Your task to perform on an android device: Open notification settings Image 0: 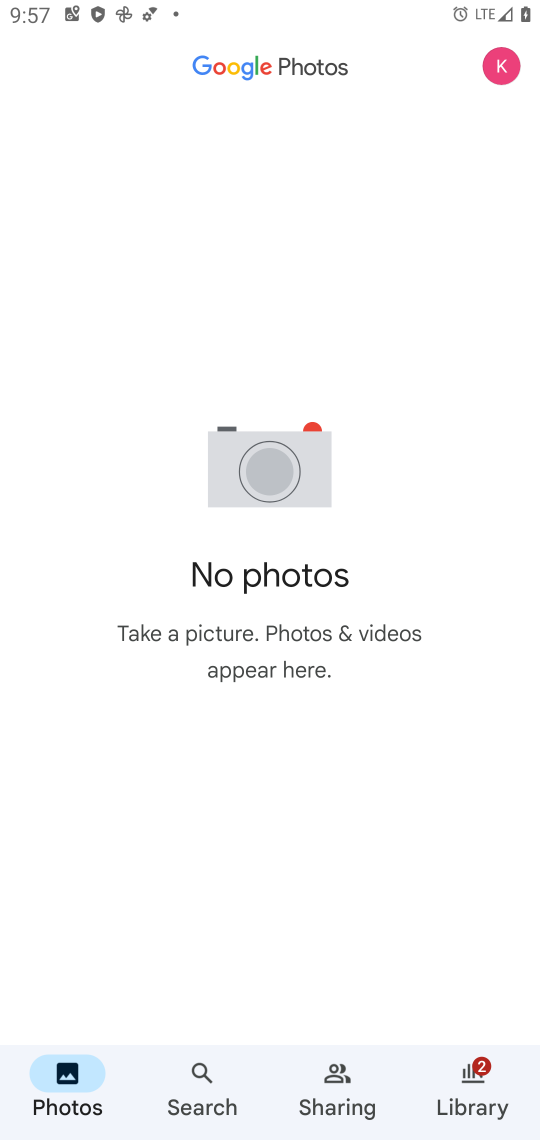
Step 0: press home button
Your task to perform on an android device: Open notification settings Image 1: 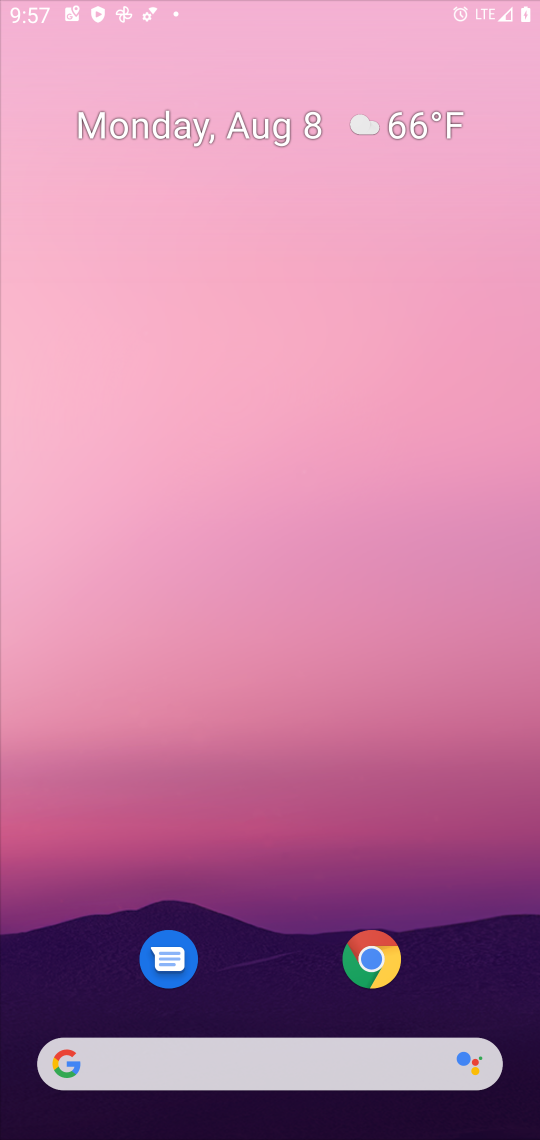
Step 1: drag from (477, 917) to (236, 80)
Your task to perform on an android device: Open notification settings Image 2: 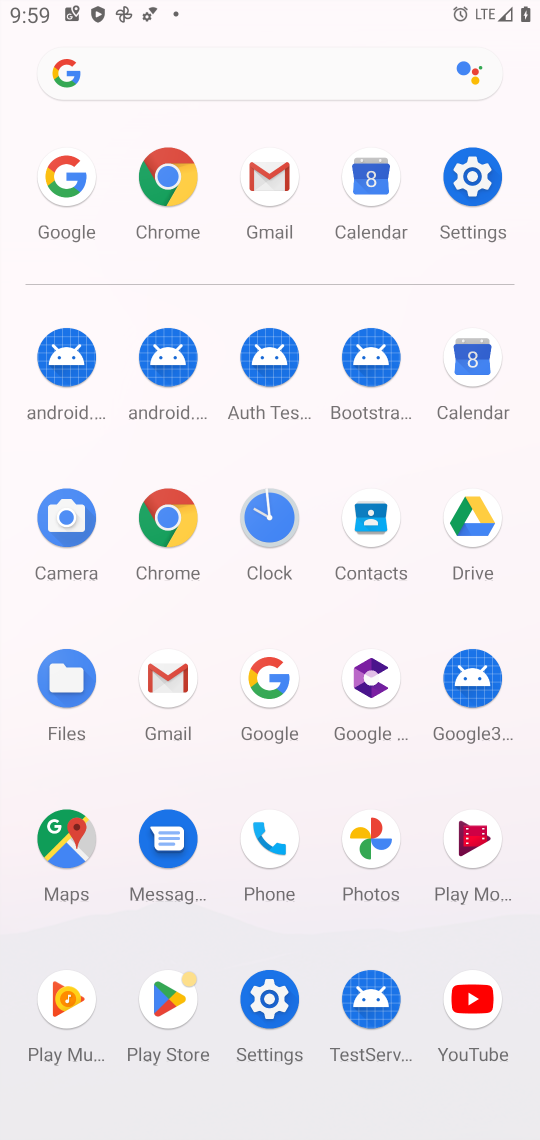
Step 2: click (263, 1008)
Your task to perform on an android device: Open notification settings Image 3: 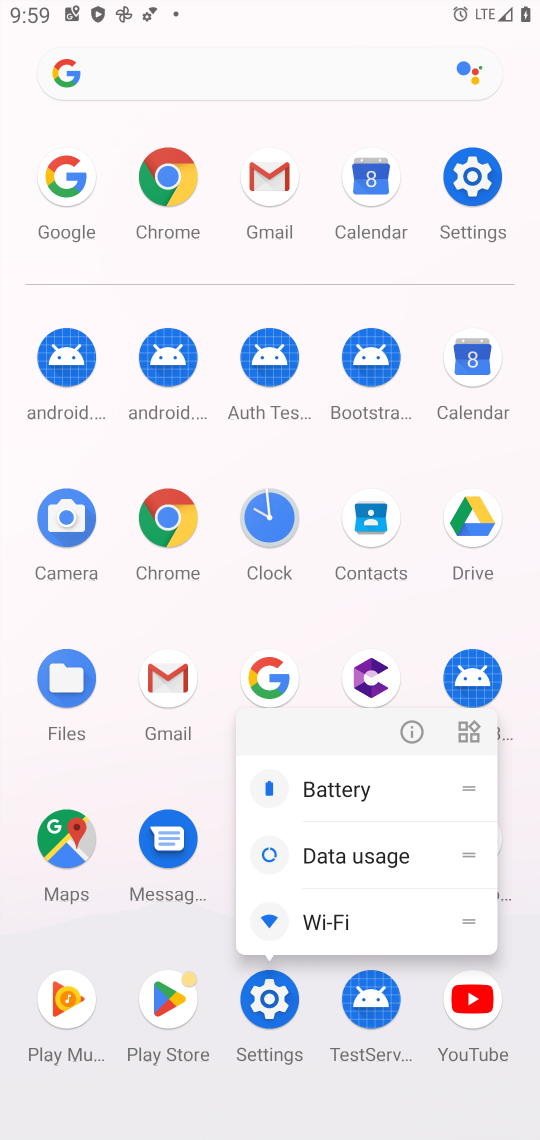
Step 3: click (270, 1004)
Your task to perform on an android device: Open notification settings Image 4: 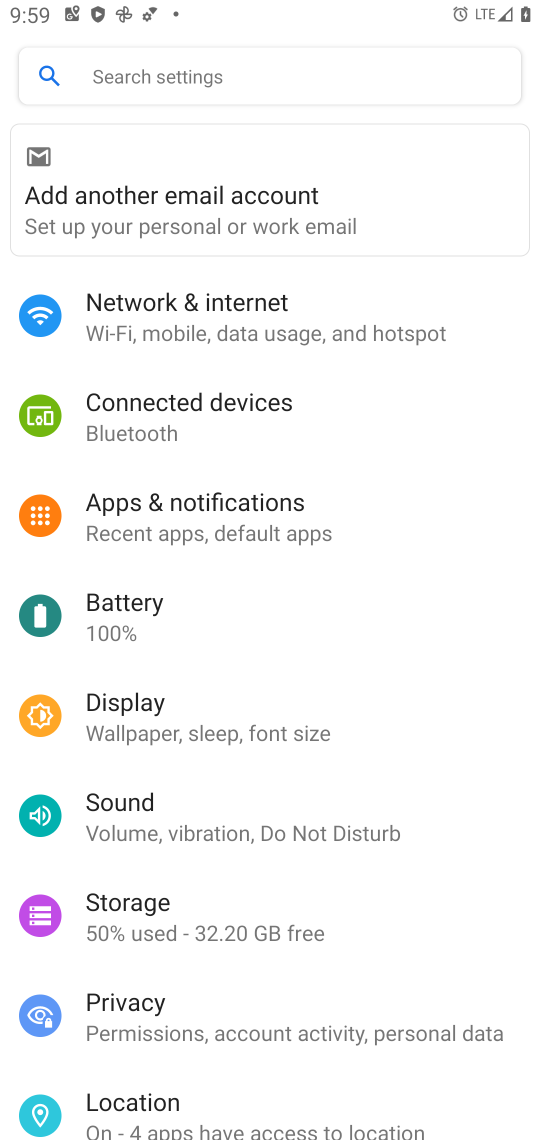
Step 4: click (145, 502)
Your task to perform on an android device: Open notification settings Image 5: 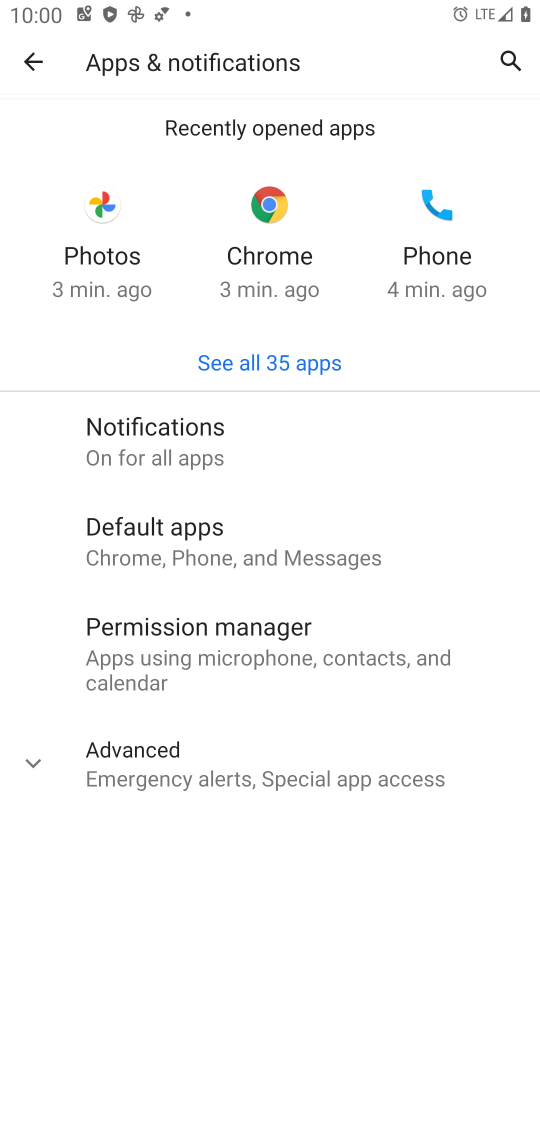
Step 5: click (326, 443)
Your task to perform on an android device: Open notification settings Image 6: 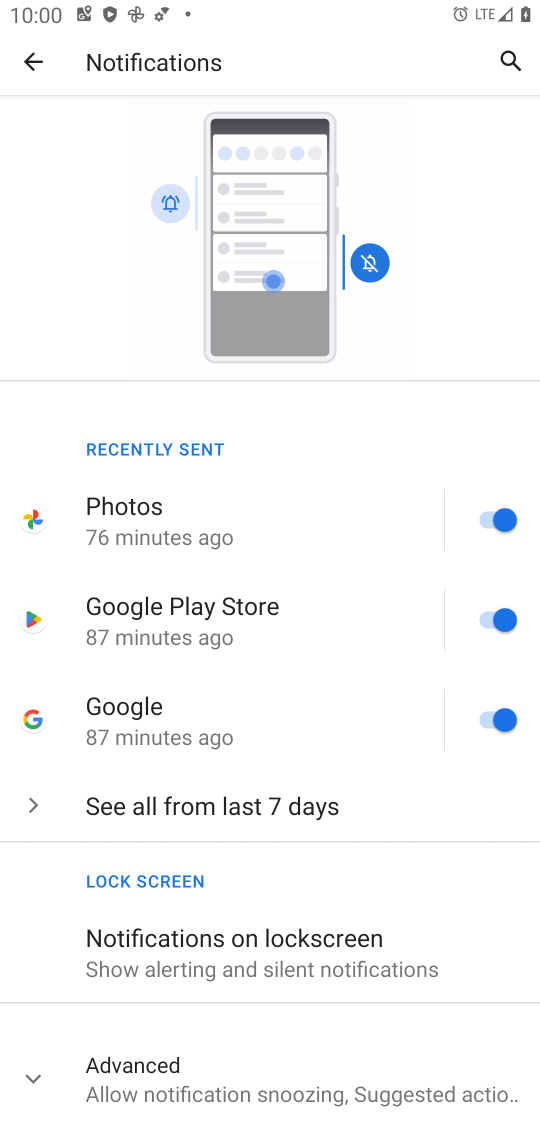
Step 6: task complete